Your task to perform on an android device: Go to wifi settings Image 0: 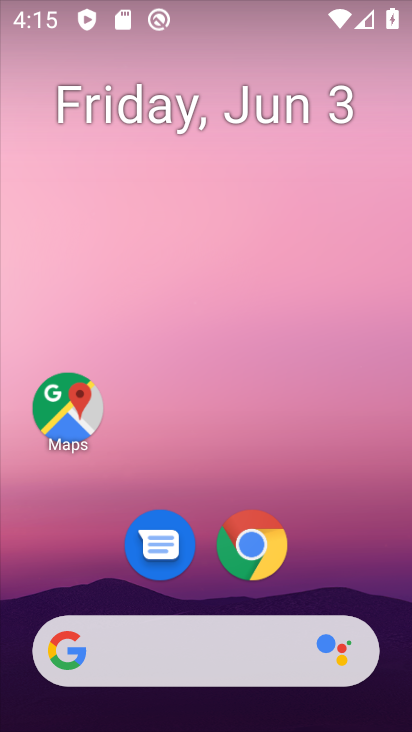
Step 0: drag from (83, 596) to (221, 208)
Your task to perform on an android device: Go to wifi settings Image 1: 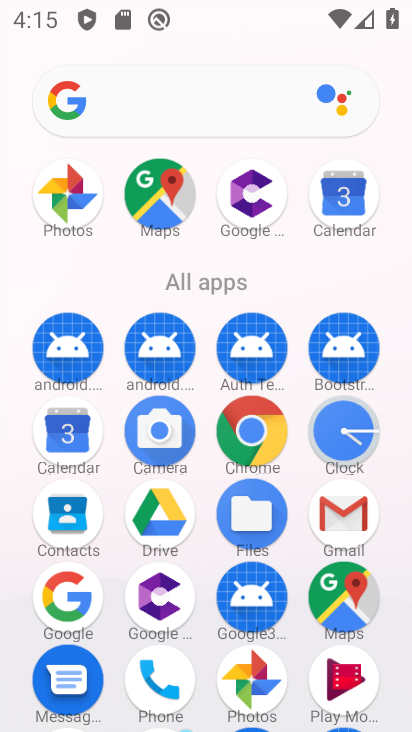
Step 1: drag from (193, 593) to (309, 273)
Your task to perform on an android device: Go to wifi settings Image 2: 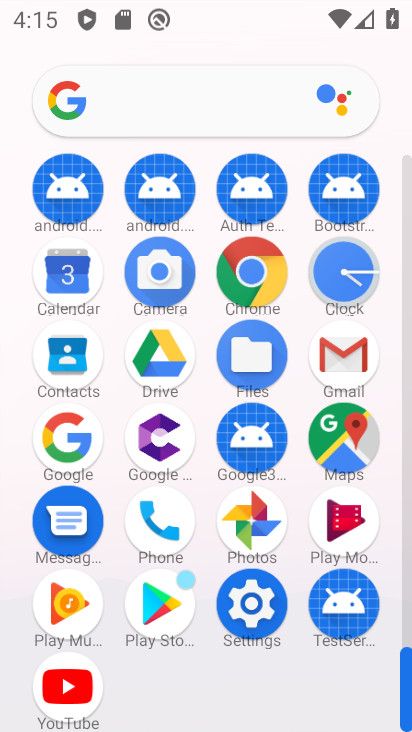
Step 2: click (263, 596)
Your task to perform on an android device: Go to wifi settings Image 3: 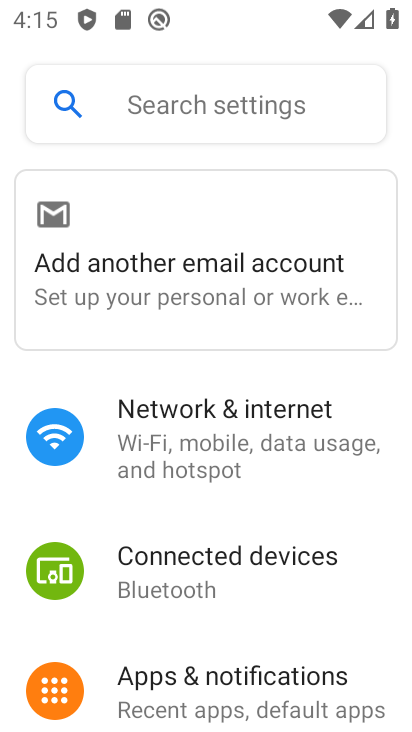
Step 3: click (258, 437)
Your task to perform on an android device: Go to wifi settings Image 4: 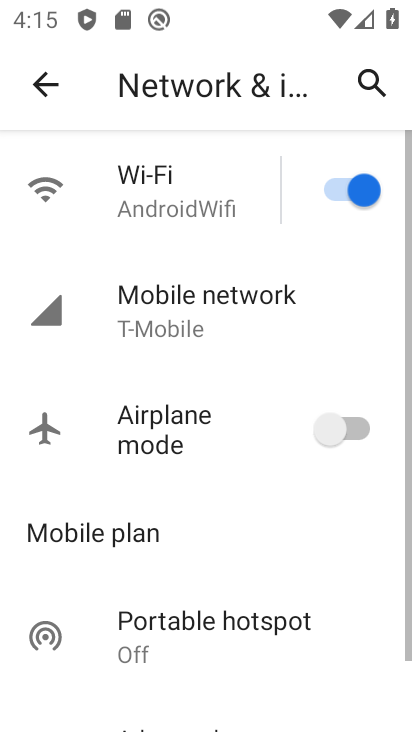
Step 4: click (191, 237)
Your task to perform on an android device: Go to wifi settings Image 5: 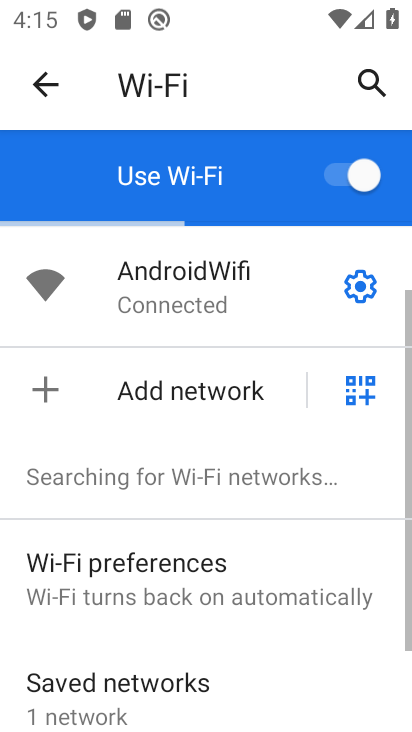
Step 5: task complete